Your task to perform on an android device: delete a single message in the gmail app Image 0: 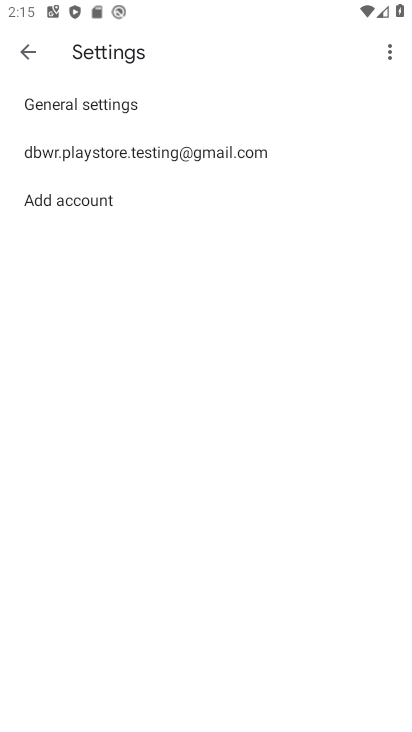
Step 0: press back button
Your task to perform on an android device: delete a single message in the gmail app Image 1: 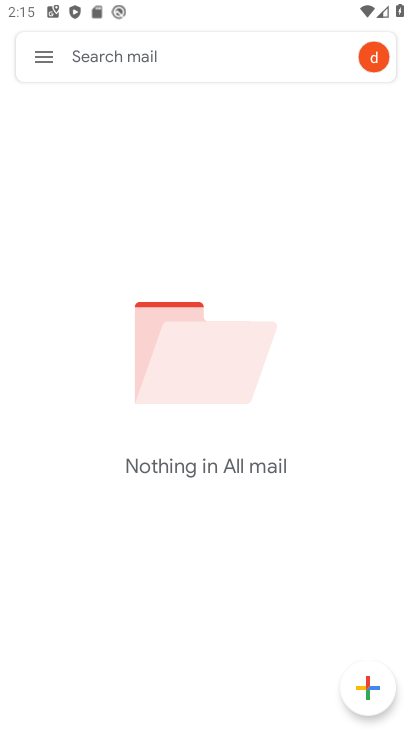
Step 1: task complete